Your task to perform on an android device: Is it going to rain tomorrow? Image 0: 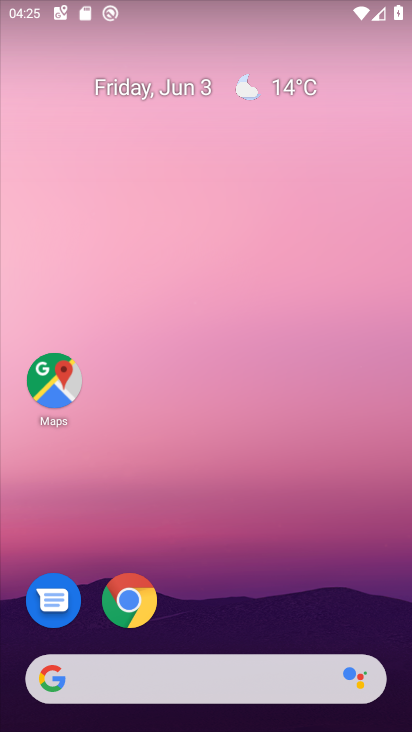
Step 0: click (295, 89)
Your task to perform on an android device: Is it going to rain tomorrow? Image 1: 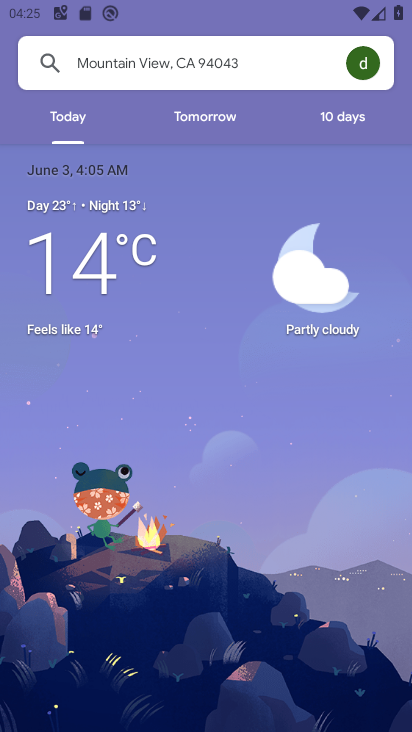
Step 1: click (225, 127)
Your task to perform on an android device: Is it going to rain tomorrow? Image 2: 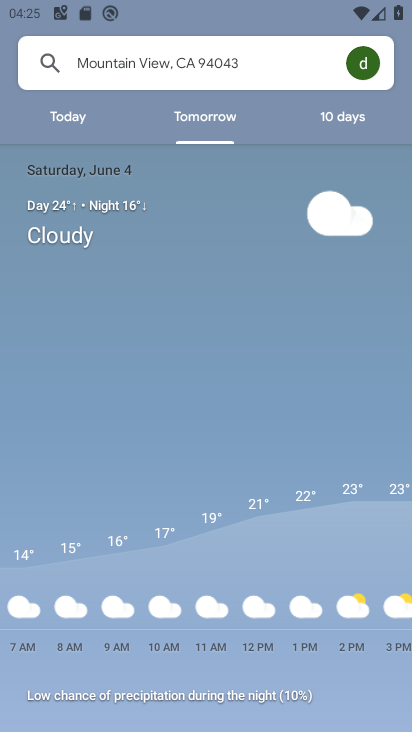
Step 2: task complete